Your task to perform on an android device: Open internet settings Image 0: 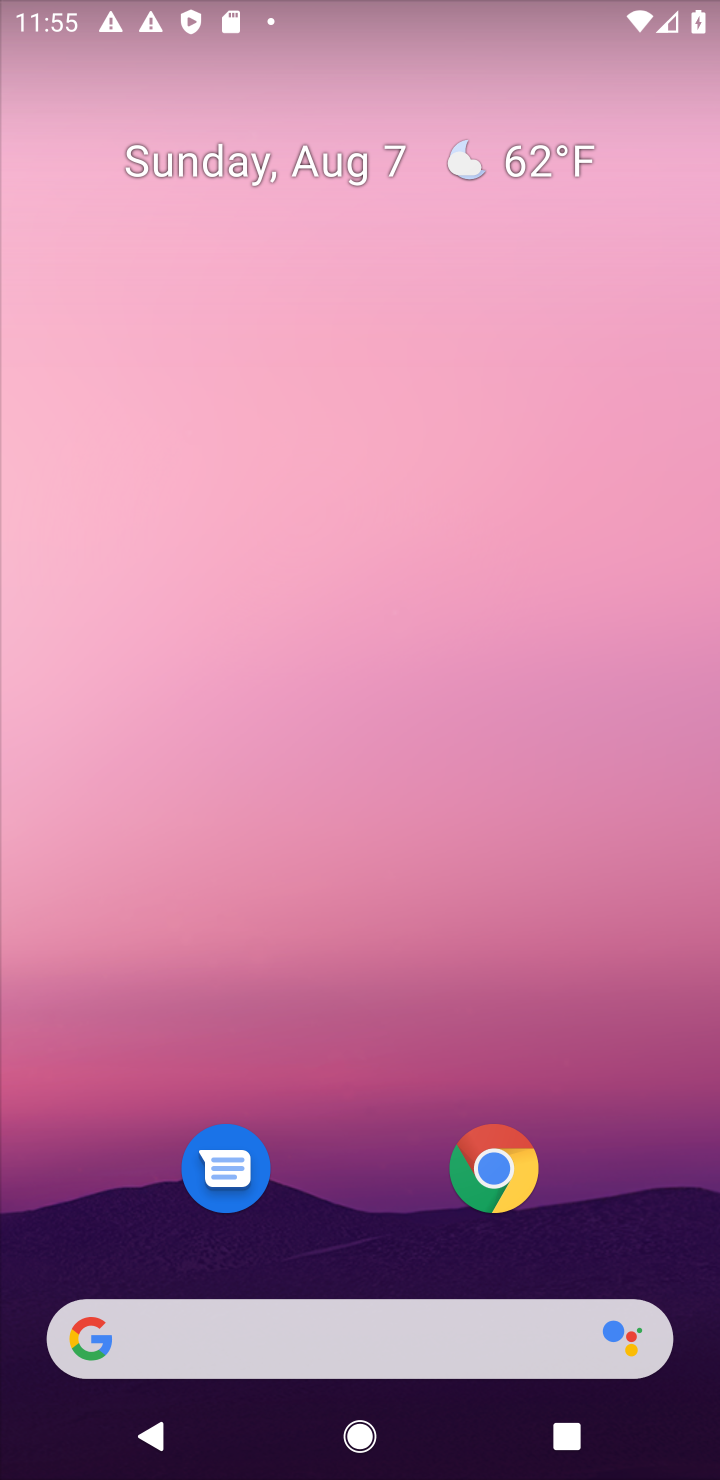
Step 0: drag from (394, 1260) to (350, 159)
Your task to perform on an android device: Open internet settings Image 1: 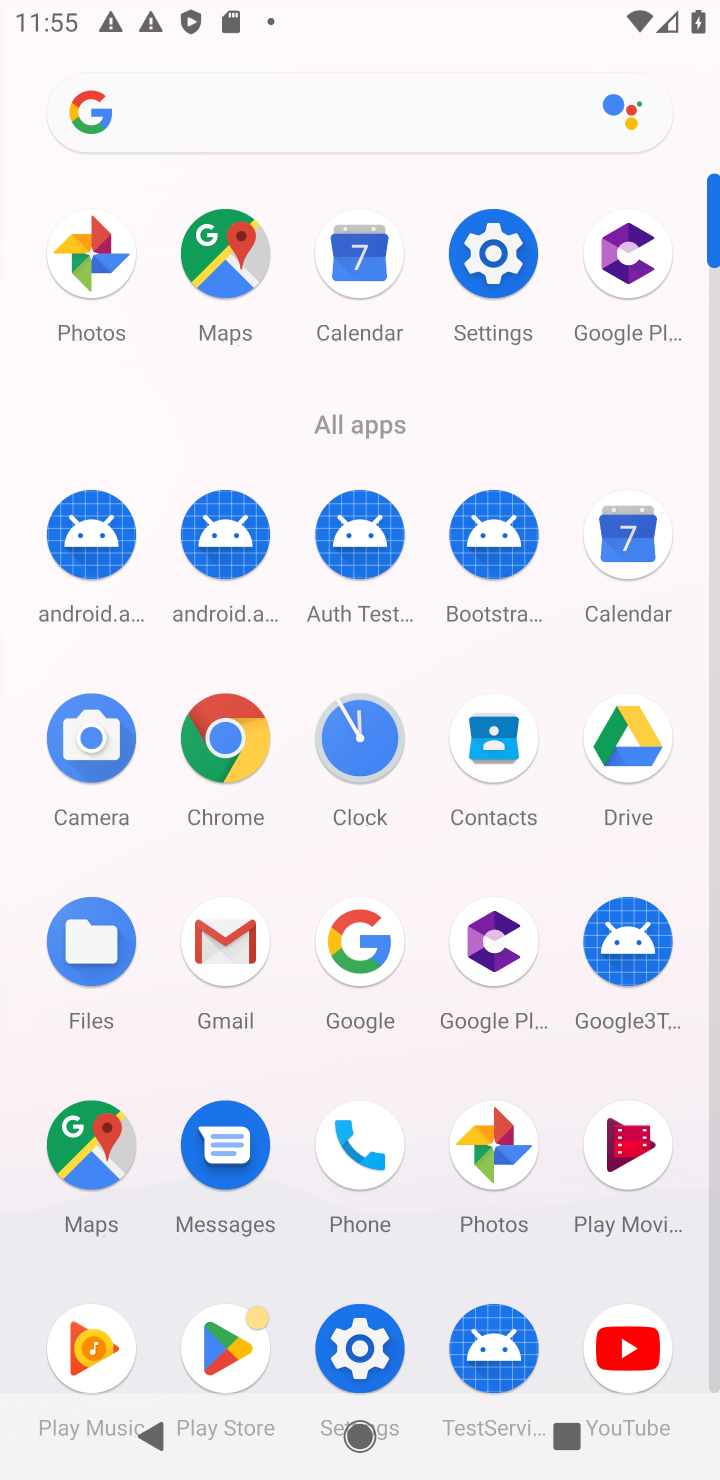
Step 1: click (498, 276)
Your task to perform on an android device: Open internet settings Image 2: 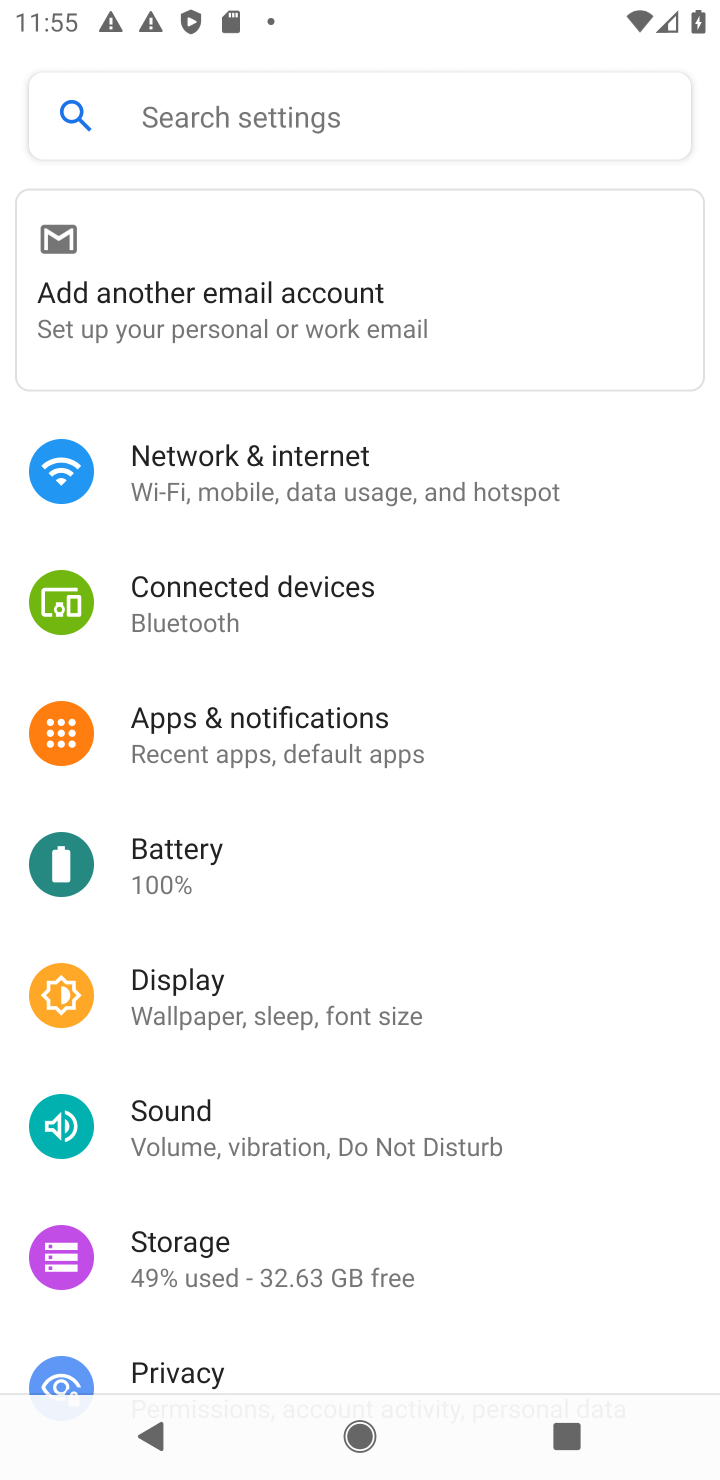
Step 2: click (490, 276)
Your task to perform on an android device: Open internet settings Image 3: 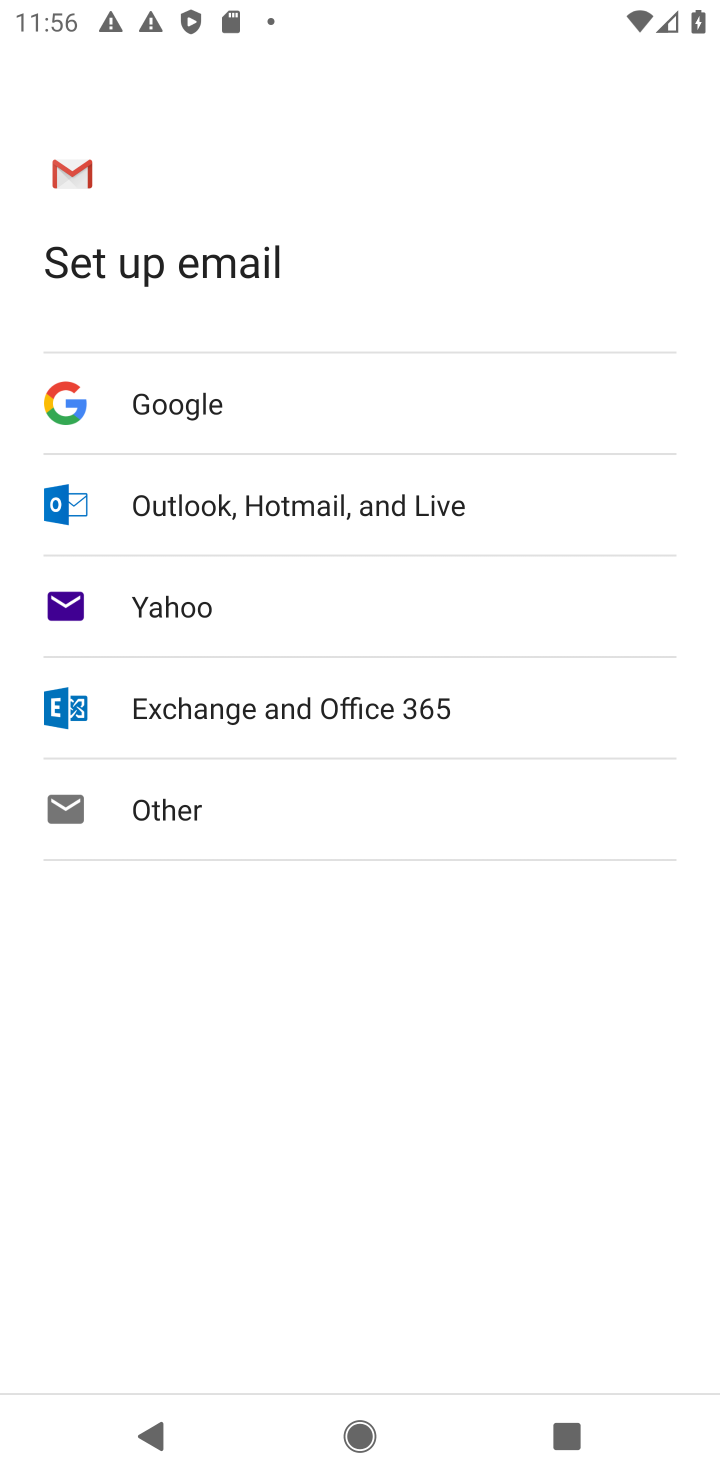
Step 3: task complete